Your task to perform on an android device: Go to Reddit.com Image 0: 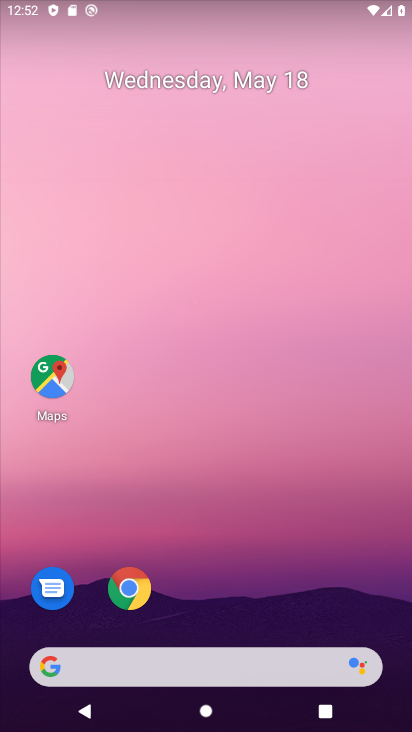
Step 0: drag from (351, 599) to (338, 76)
Your task to perform on an android device: Go to Reddit.com Image 1: 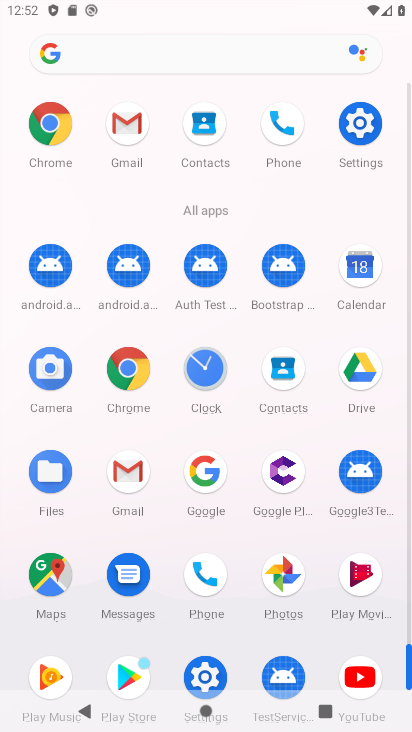
Step 1: click (127, 363)
Your task to perform on an android device: Go to Reddit.com Image 2: 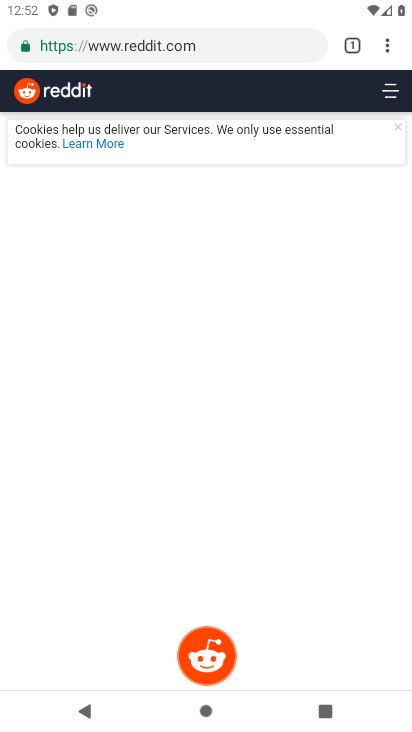
Step 2: click (194, 39)
Your task to perform on an android device: Go to Reddit.com Image 3: 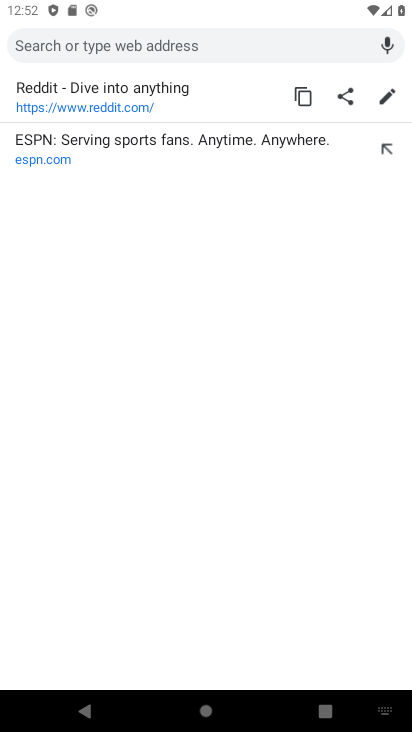
Step 3: type "reddit.com"
Your task to perform on an android device: Go to Reddit.com Image 4: 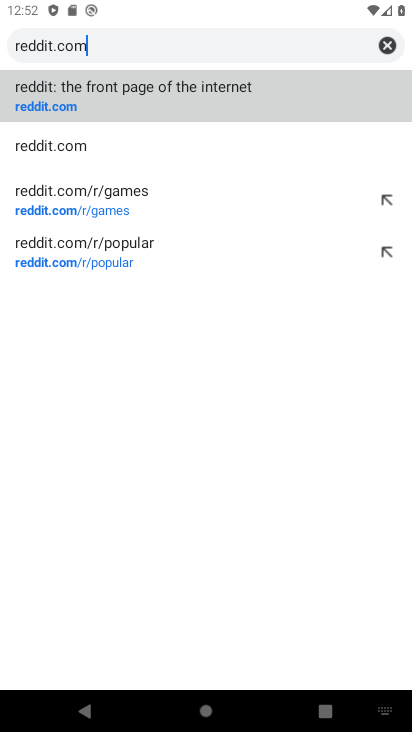
Step 4: click (87, 148)
Your task to perform on an android device: Go to Reddit.com Image 5: 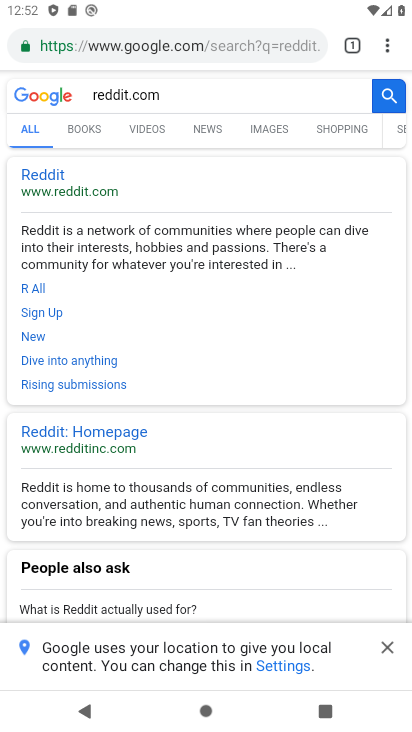
Step 5: task complete